Your task to perform on an android device: turn off javascript in the chrome app Image 0: 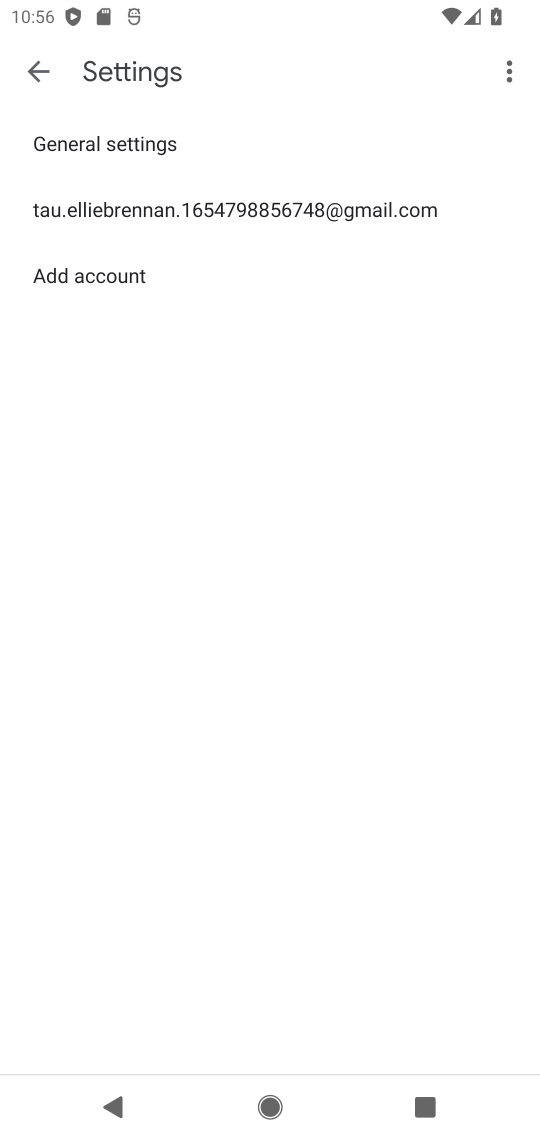
Step 0: press home button
Your task to perform on an android device: turn off javascript in the chrome app Image 1: 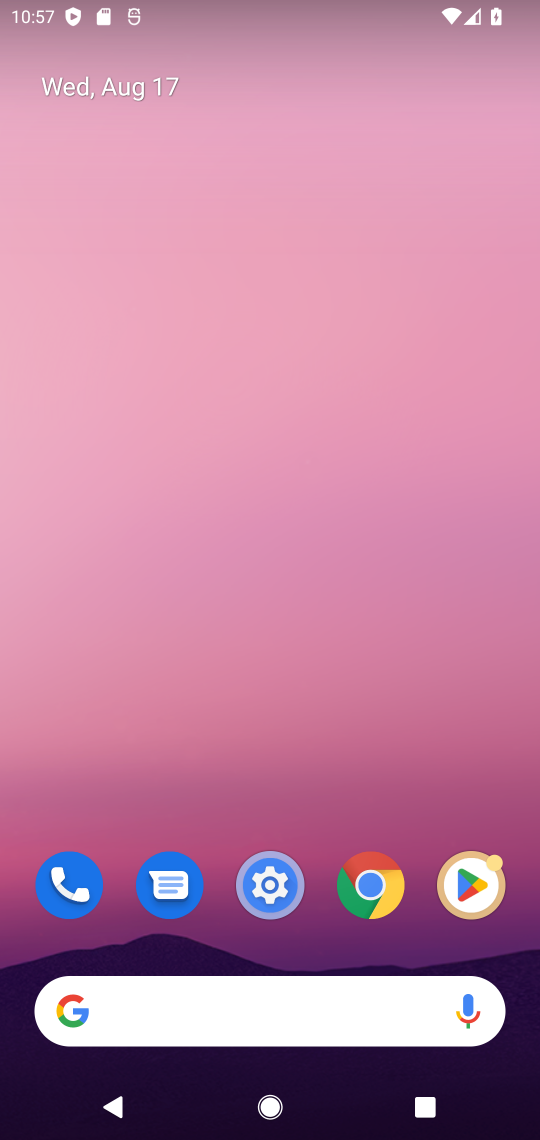
Step 1: click (380, 886)
Your task to perform on an android device: turn off javascript in the chrome app Image 2: 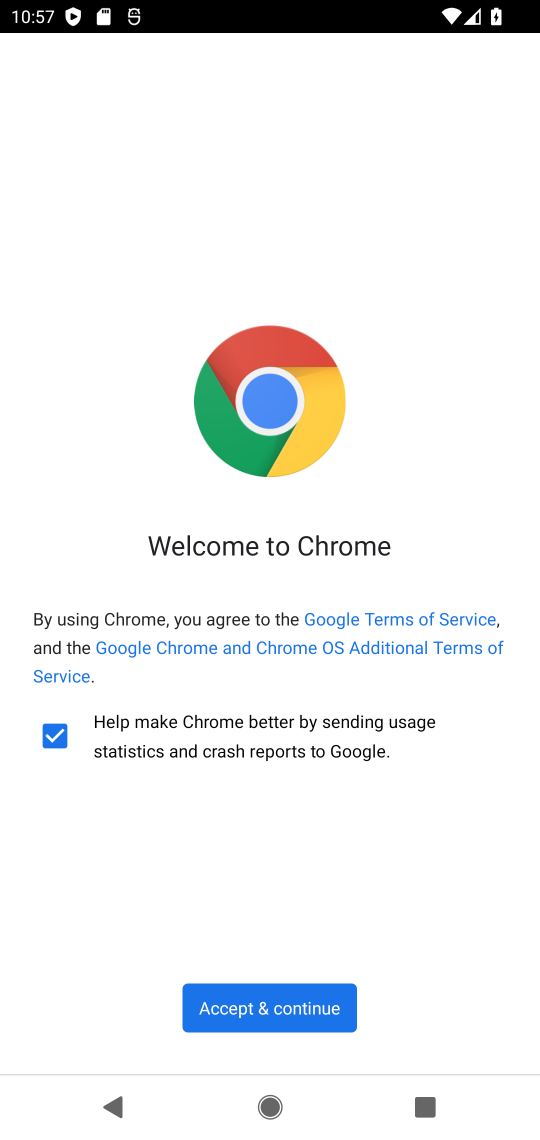
Step 2: click (326, 996)
Your task to perform on an android device: turn off javascript in the chrome app Image 3: 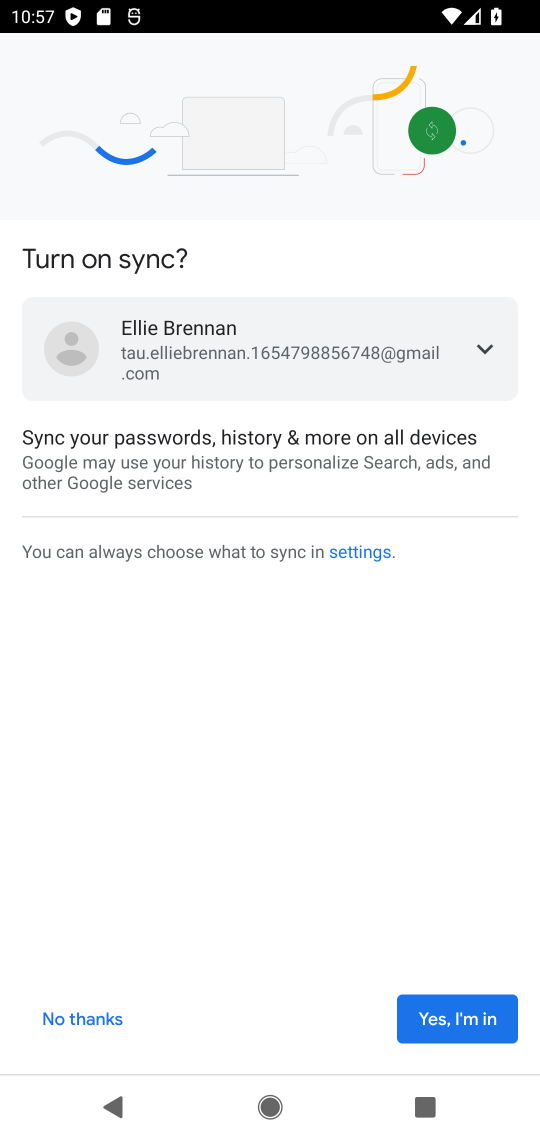
Step 3: click (439, 1021)
Your task to perform on an android device: turn off javascript in the chrome app Image 4: 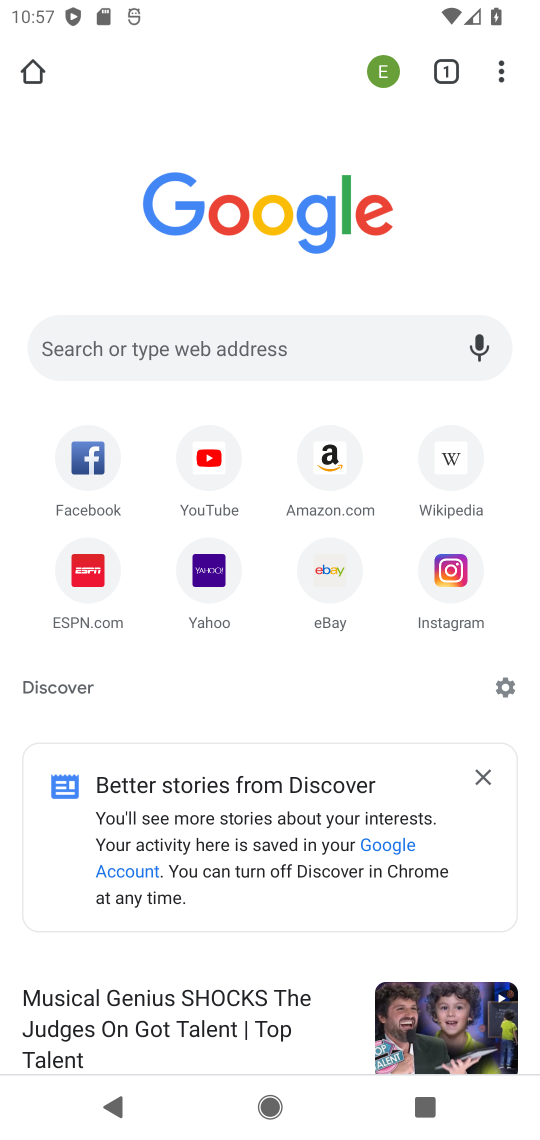
Step 4: click (502, 67)
Your task to perform on an android device: turn off javascript in the chrome app Image 5: 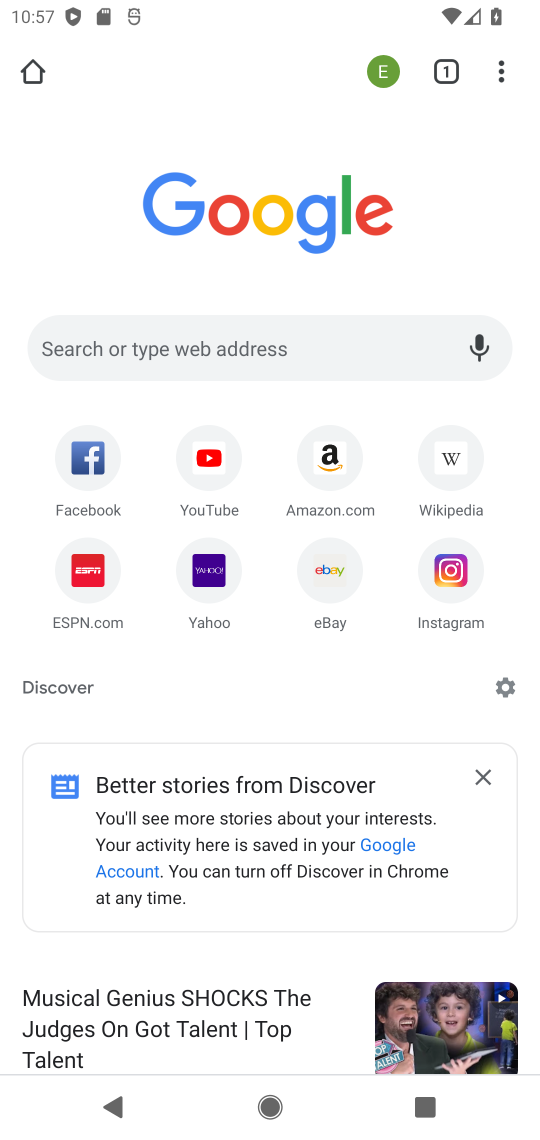
Step 5: click (502, 83)
Your task to perform on an android device: turn off javascript in the chrome app Image 6: 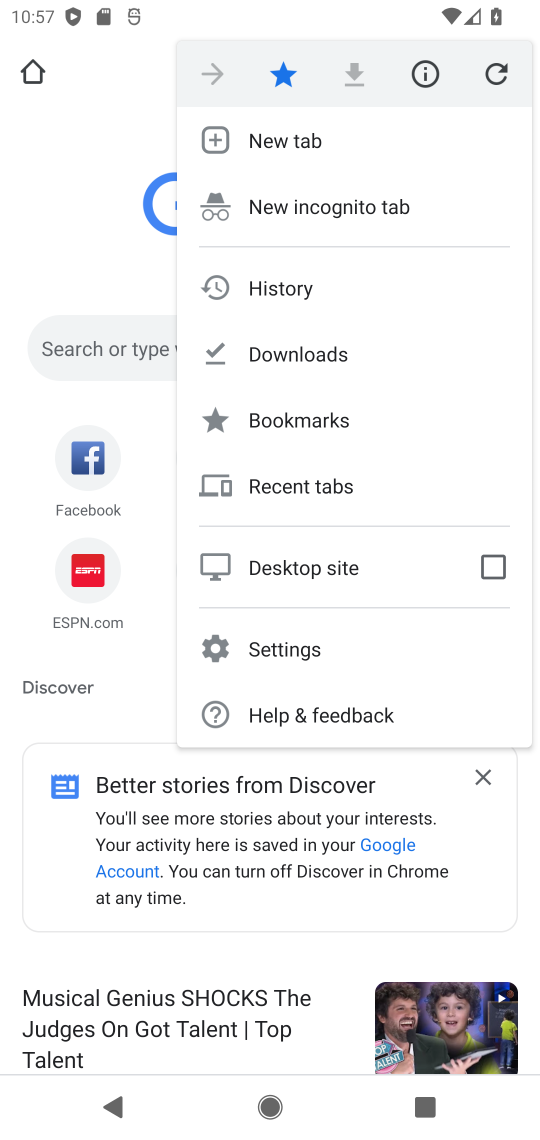
Step 6: click (327, 636)
Your task to perform on an android device: turn off javascript in the chrome app Image 7: 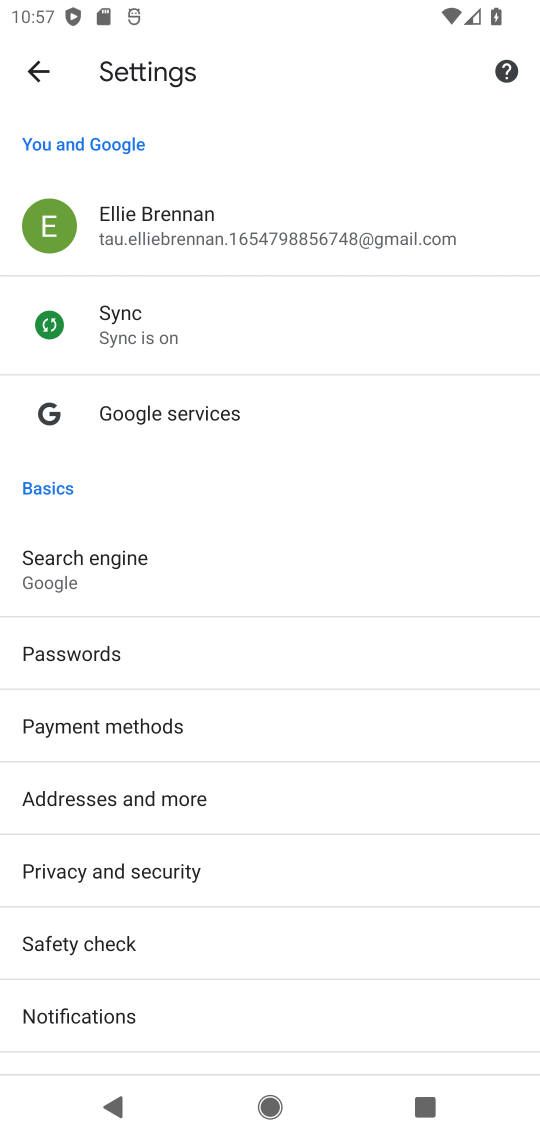
Step 7: drag from (303, 884) to (301, 282)
Your task to perform on an android device: turn off javascript in the chrome app Image 8: 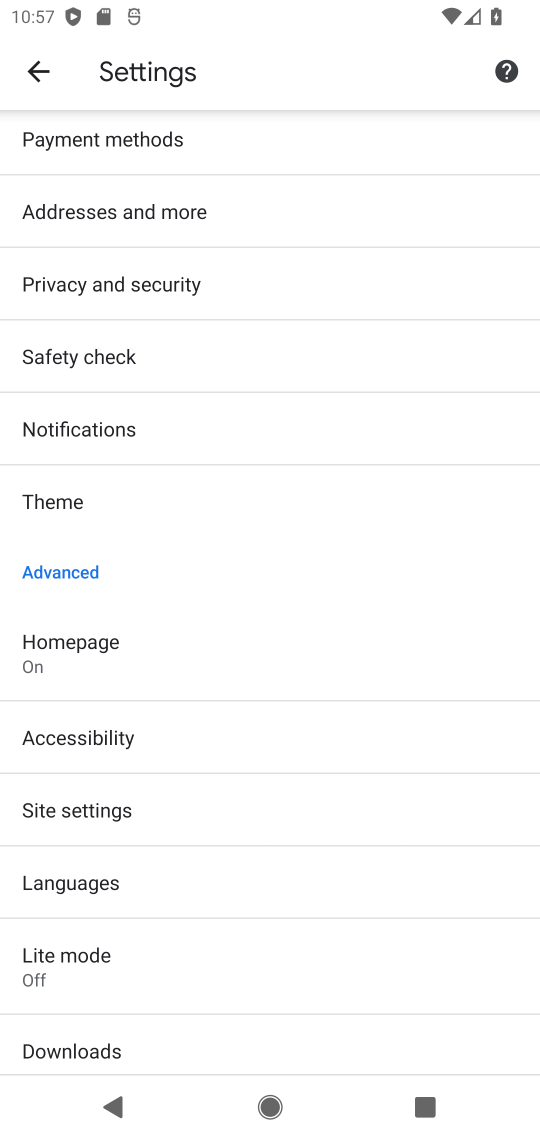
Step 8: click (169, 813)
Your task to perform on an android device: turn off javascript in the chrome app Image 9: 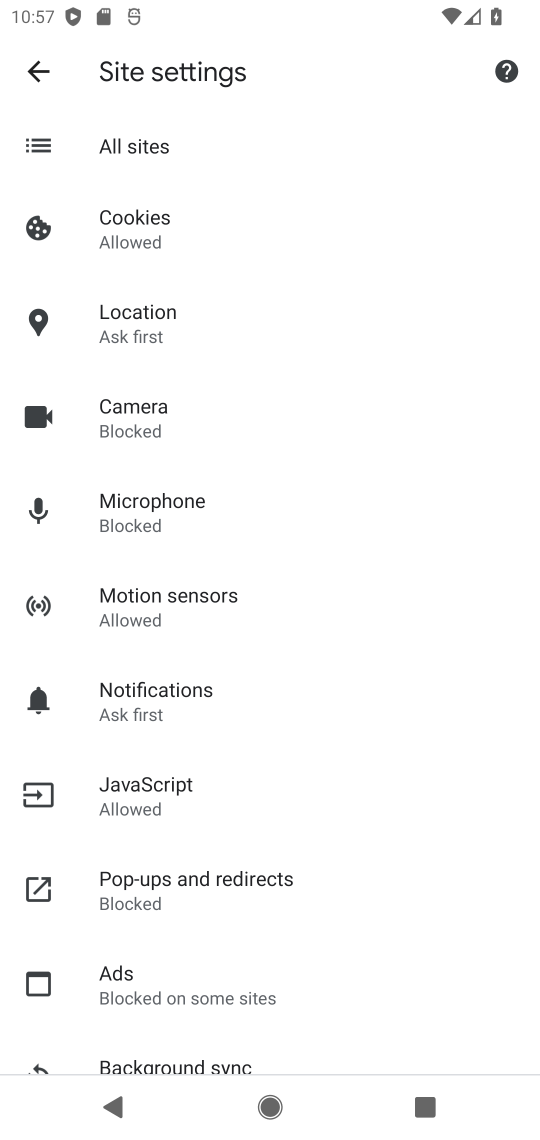
Step 9: click (185, 794)
Your task to perform on an android device: turn off javascript in the chrome app Image 10: 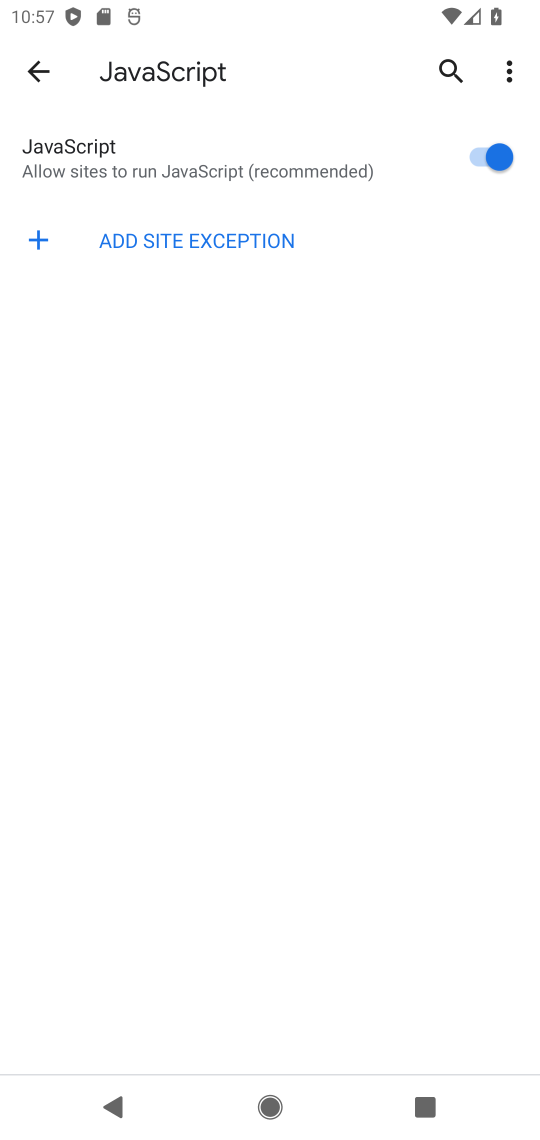
Step 10: click (495, 153)
Your task to perform on an android device: turn off javascript in the chrome app Image 11: 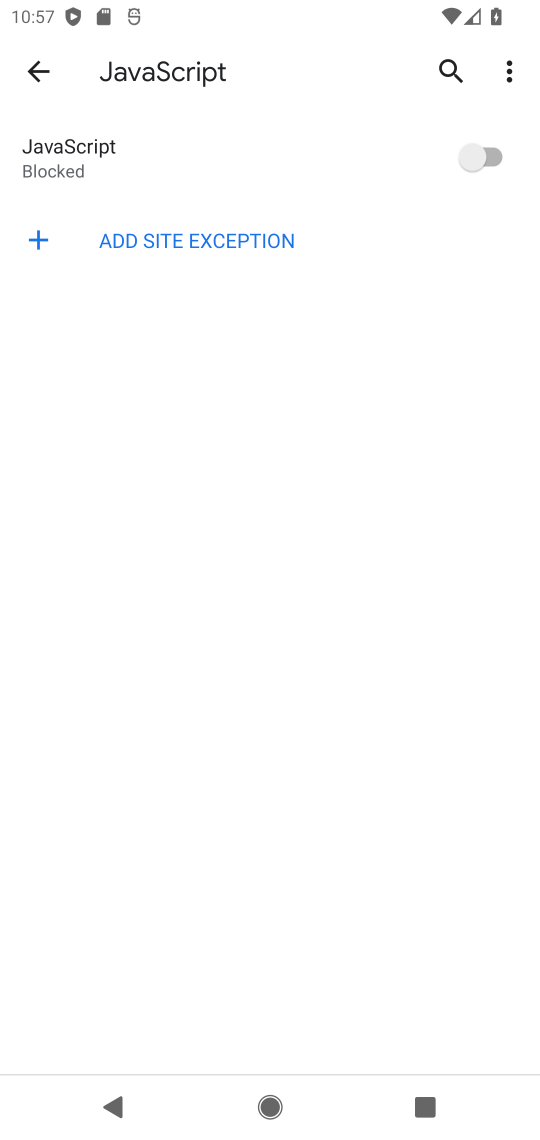
Step 11: task complete